Your task to perform on an android device: toggle improve location accuracy Image 0: 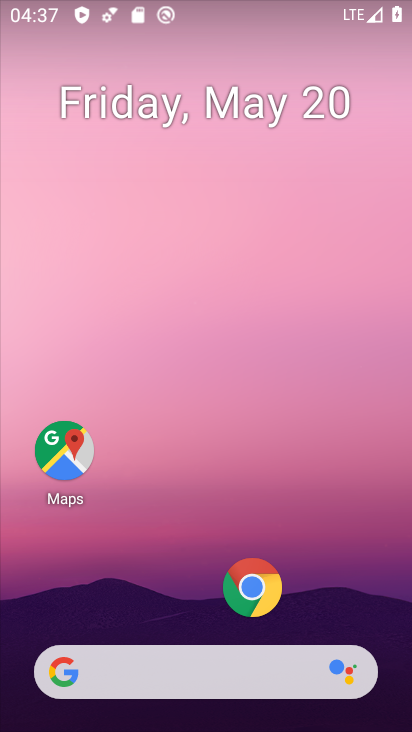
Step 0: drag from (138, 618) to (237, 35)
Your task to perform on an android device: toggle improve location accuracy Image 1: 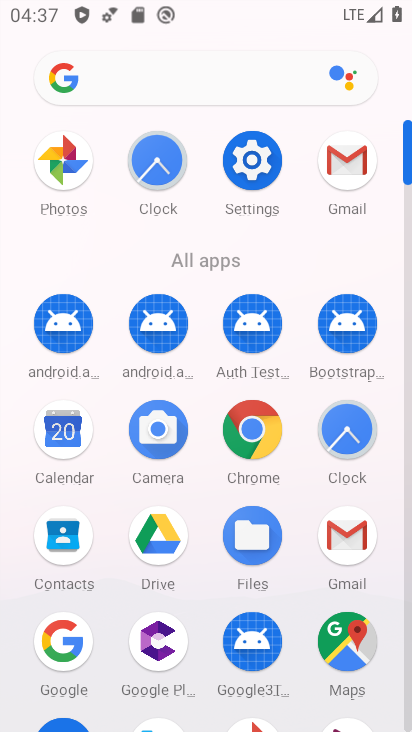
Step 1: click (258, 187)
Your task to perform on an android device: toggle improve location accuracy Image 2: 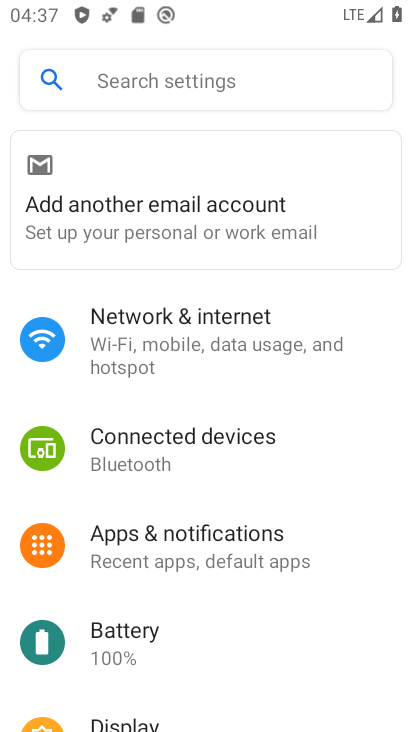
Step 2: drag from (153, 682) to (157, 172)
Your task to perform on an android device: toggle improve location accuracy Image 3: 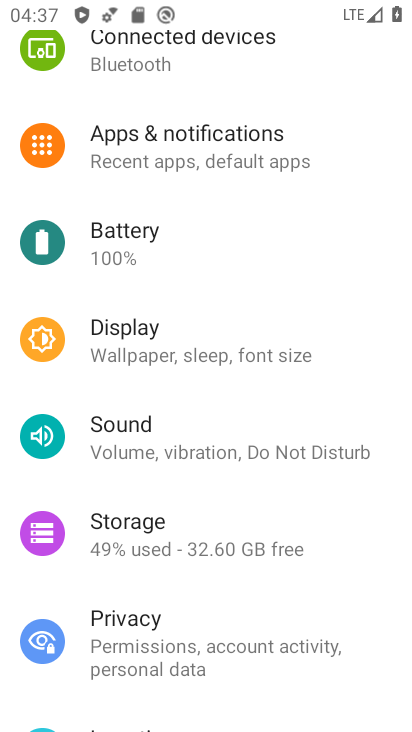
Step 3: drag from (47, 570) to (152, 130)
Your task to perform on an android device: toggle improve location accuracy Image 4: 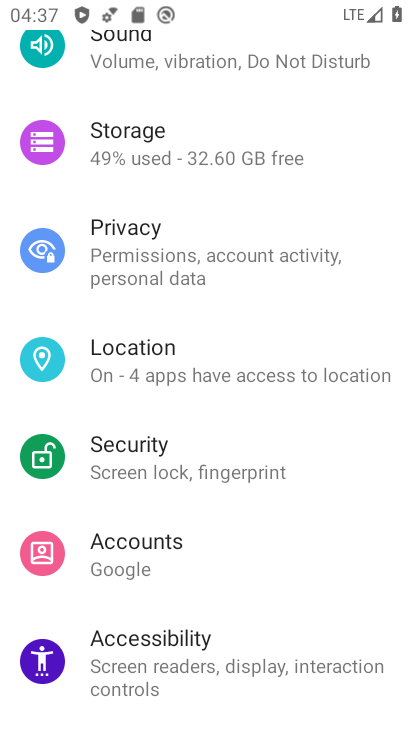
Step 4: click (136, 365)
Your task to perform on an android device: toggle improve location accuracy Image 5: 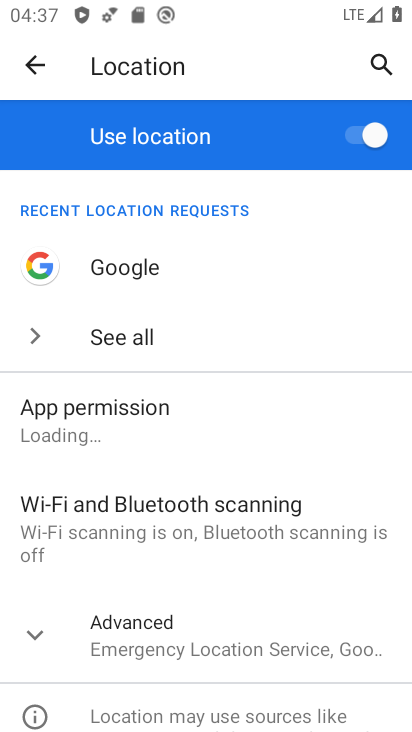
Step 5: click (175, 646)
Your task to perform on an android device: toggle improve location accuracy Image 6: 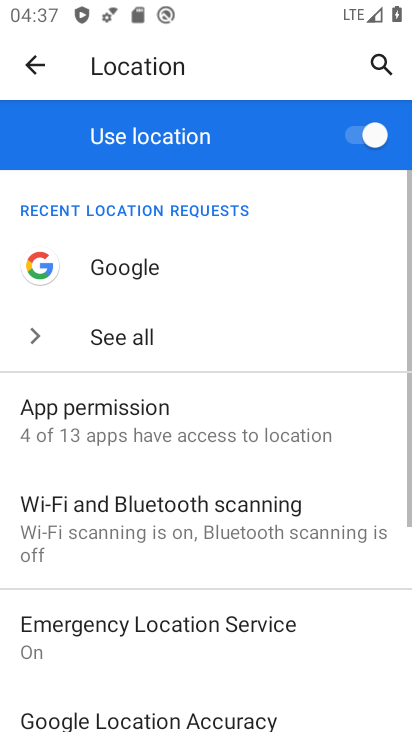
Step 6: drag from (175, 646) to (230, 240)
Your task to perform on an android device: toggle improve location accuracy Image 7: 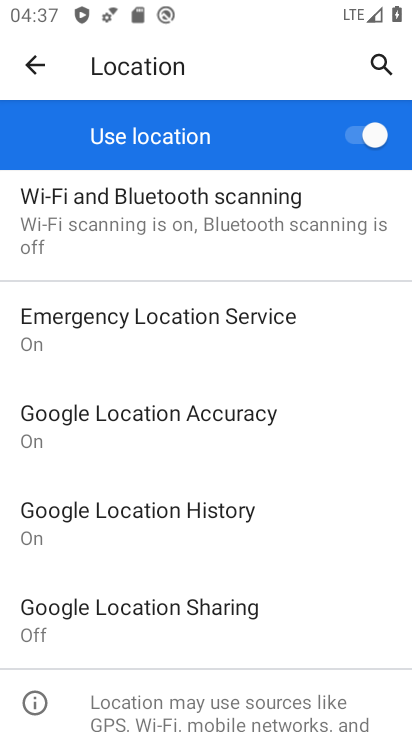
Step 7: click (132, 402)
Your task to perform on an android device: toggle improve location accuracy Image 8: 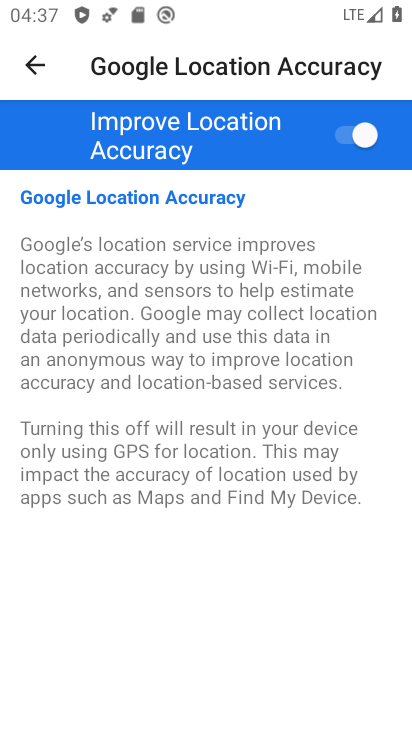
Step 8: click (359, 129)
Your task to perform on an android device: toggle improve location accuracy Image 9: 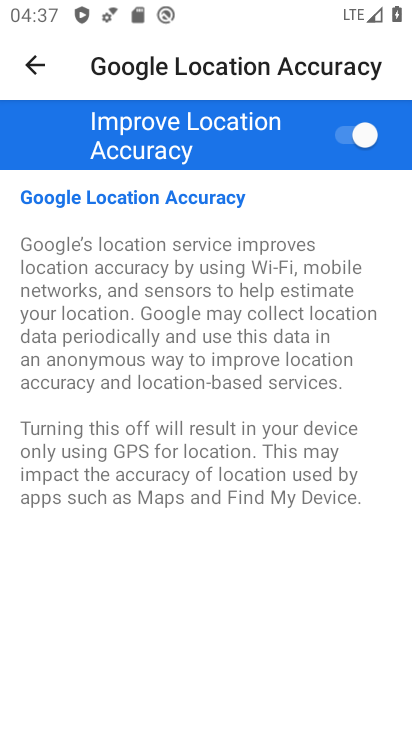
Step 9: click (359, 129)
Your task to perform on an android device: toggle improve location accuracy Image 10: 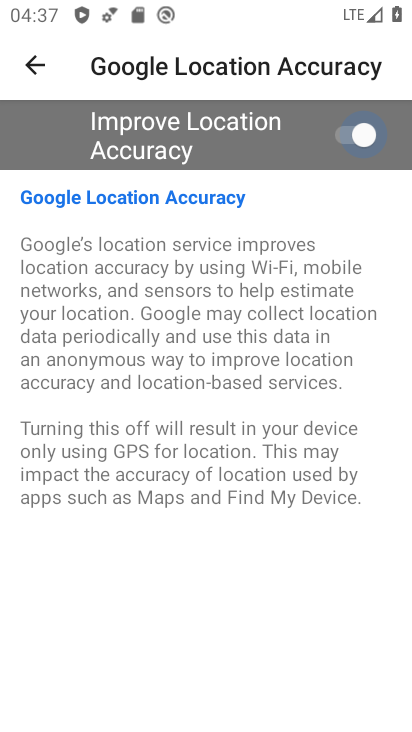
Step 10: click (359, 129)
Your task to perform on an android device: toggle improve location accuracy Image 11: 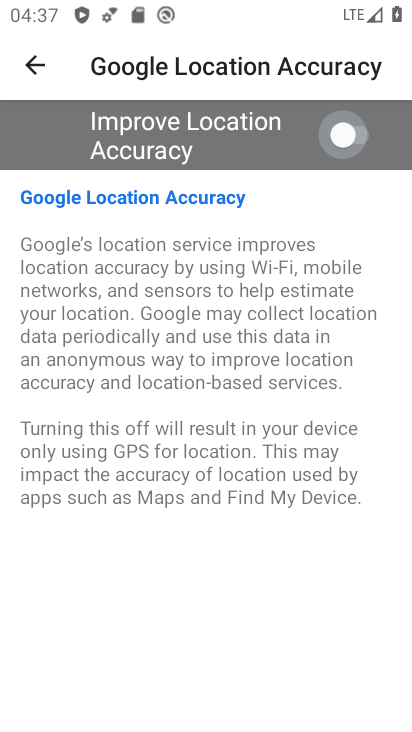
Step 11: click (359, 129)
Your task to perform on an android device: toggle improve location accuracy Image 12: 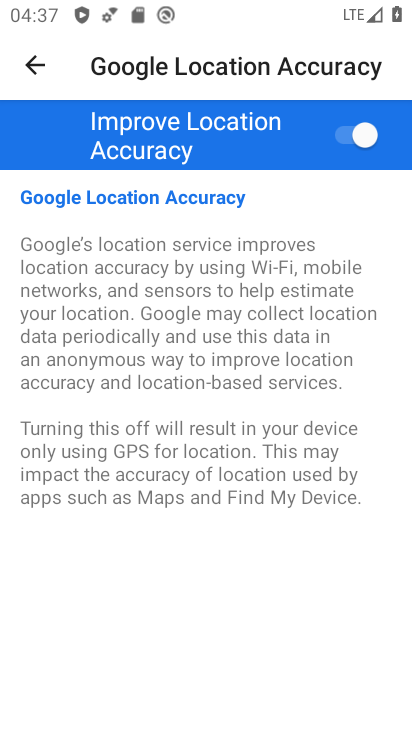
Step 12: click (359, 129)
Your task to perform on an android device: toggle improve location accuracy Image 13: 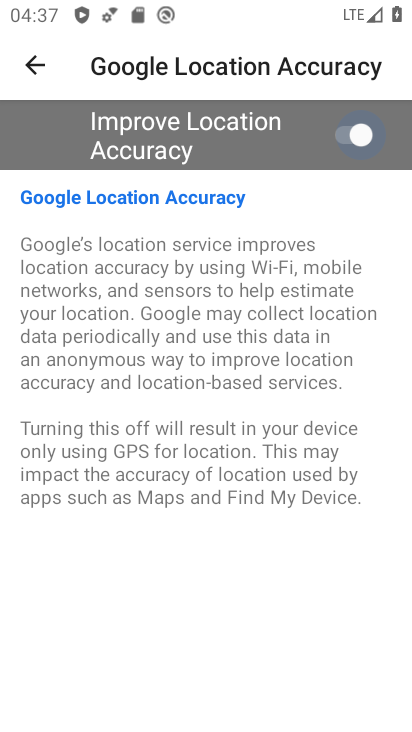
Step 13: click (359, 129)
Your task to perform on an android device: toggle improve location accuracy Image 14: 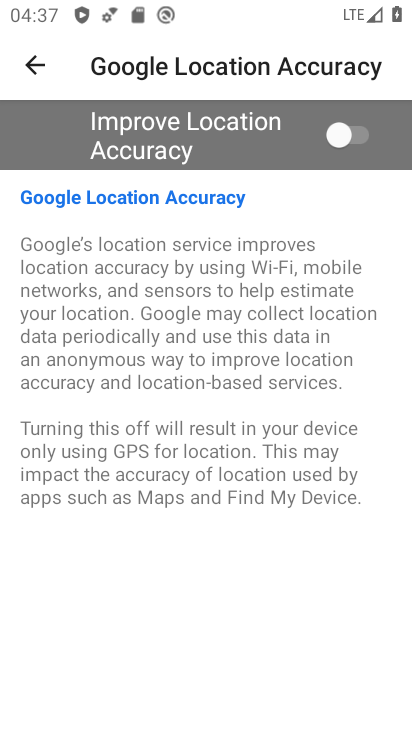
Step 14: task complete